Your task to perform on an android device: clear all cookies in the chrome app Image 0: 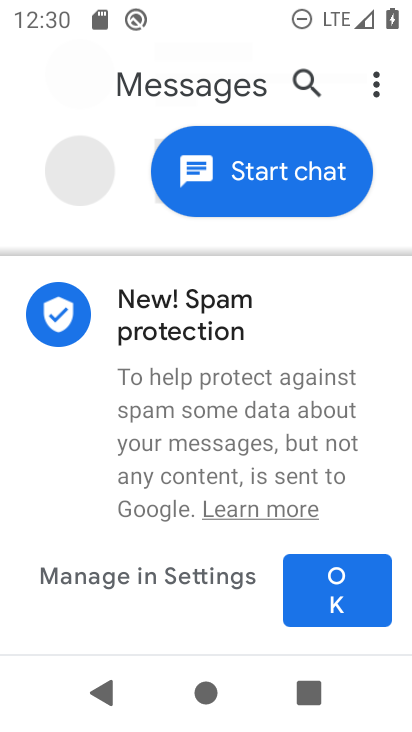
Step 0: press back button
Your task to perform on an android device: clear all cookies in the chrome app Image 1: 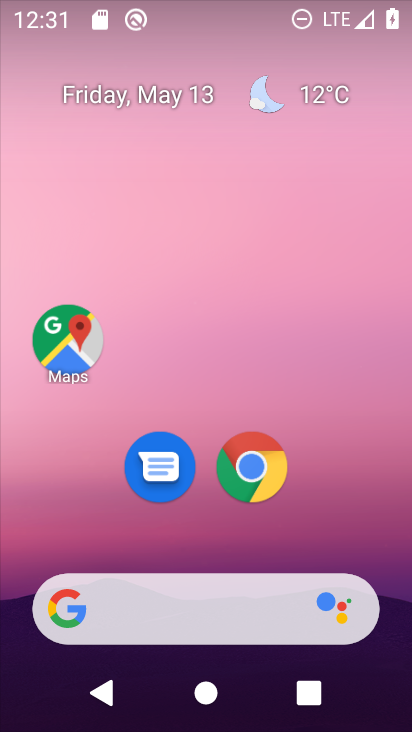
Step 1: drag from (368, 514) to (243, 31)
Your task to perform on an android device: clear all cookies in the chrome app Image 2: 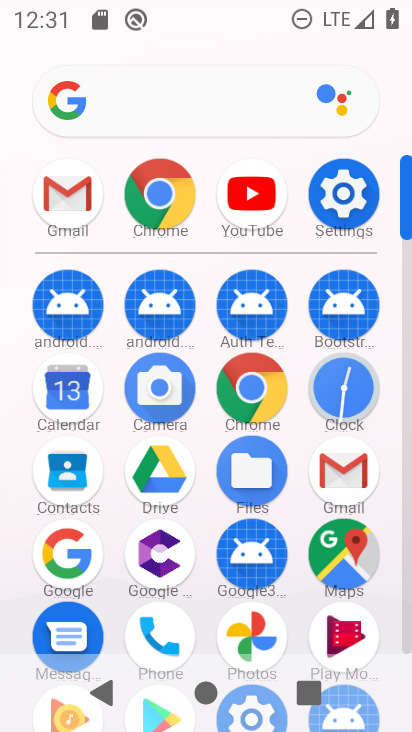
Step 2: click (249, 388)
Your task to perform on an android device: clear all cookies in the chrome app Image 3: 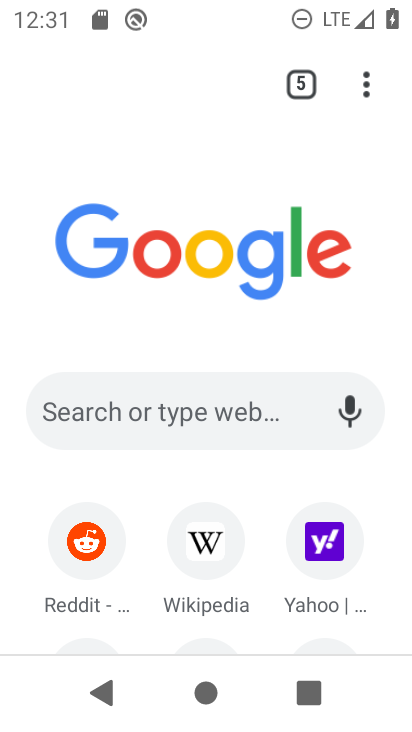
Step 3: drag from (359, 83) to (165, 276)
Your task to perform on an android device: clear all cookies in the chrome app Image 4: 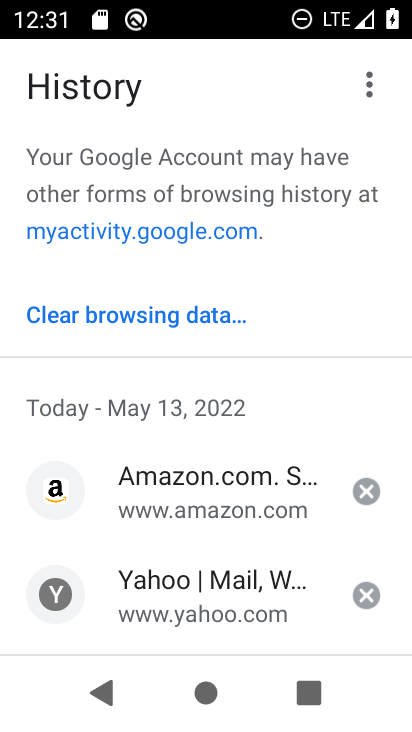
Step 4: click (164, 300)
Your task to perform on an android device: clear all cookies in the chrome app Image 5: 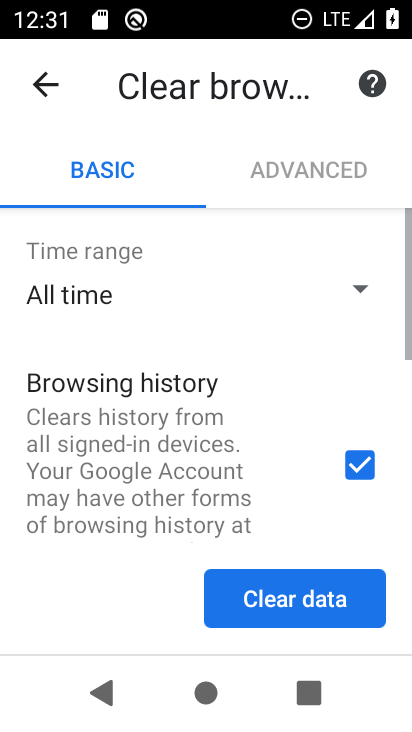
Step 5: click (309, 590)
Your task to perform on an android device: clear all cookies in the chrome app Image 6: 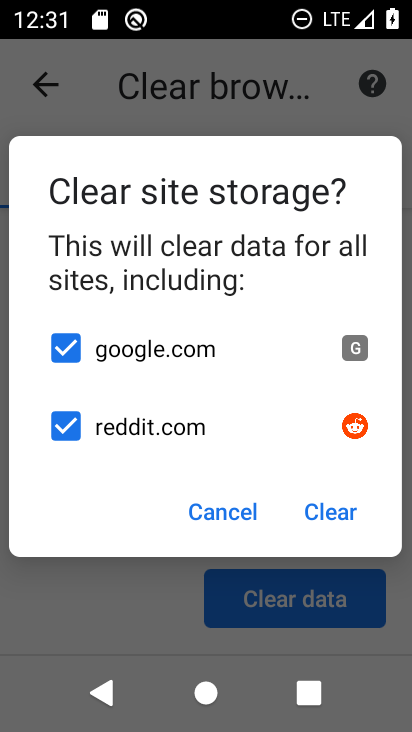
Step 6: click (318, 506)
Your task to perform on an android device: clear all cookies in the chrome app Image 7: 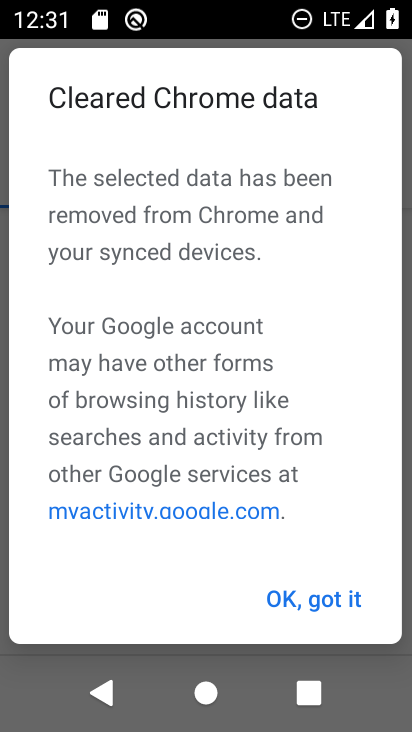
Step 7: click (302, 598)
Your task to perform on an android device: clear all cookies in the chrome app Image 8: 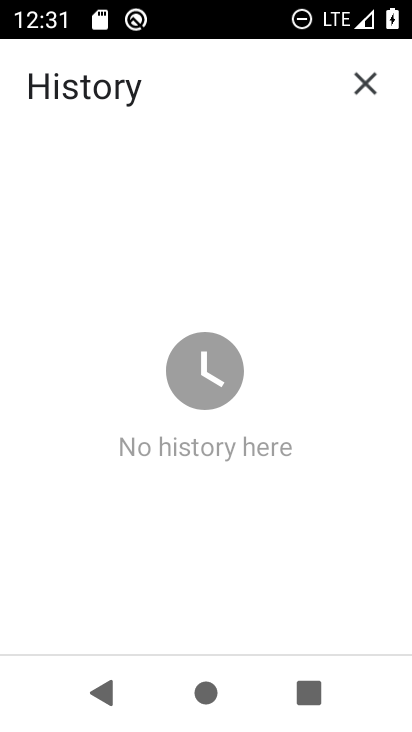
Step 8: task complete